Your task to perform on an android device: clear history in the chrome app Image 0: 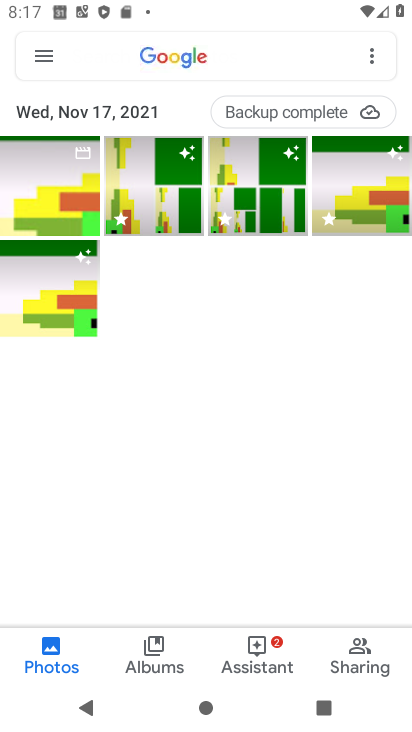
Step 0: press home button
Your task to perform on an android device: clear history in the chrome app Image 1: 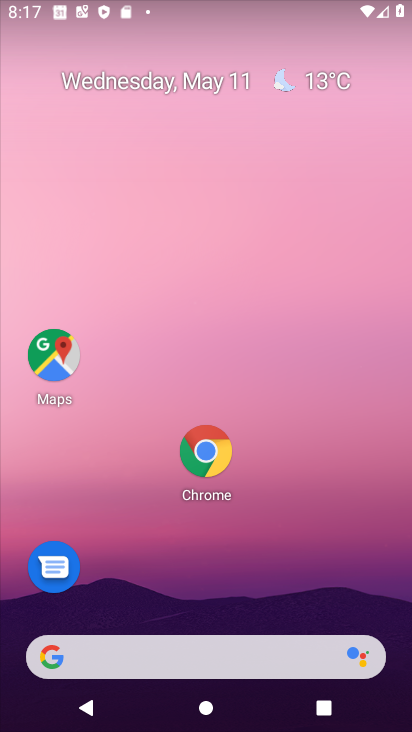
Step 1: click (206, 455)
Your task to perform on an android device: clear history in the chrome app Image 2: 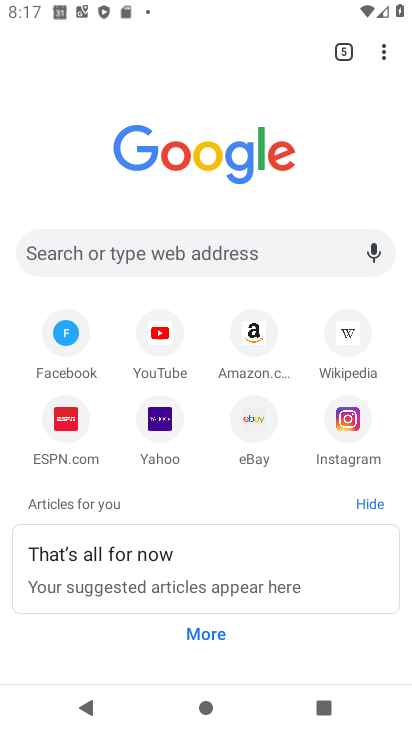
Step 2: drag from (382, 57) to (227, 299)
Your task to perform on an android device: clear history in the chrome app Image 3: 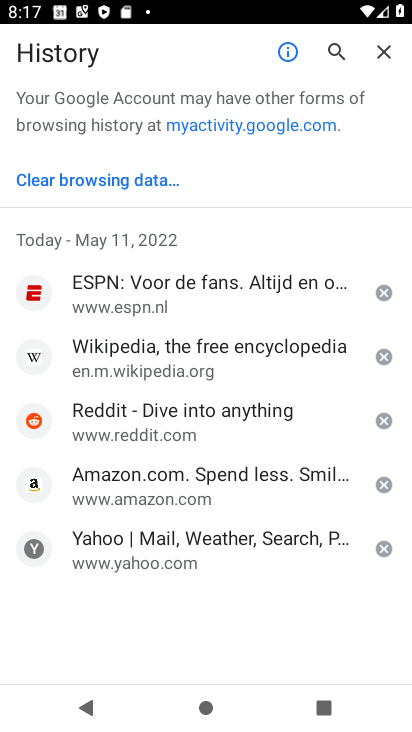
Step 3: click (97, 178)
Your task to perform on an android device: clear history in the chrome app Image 4: 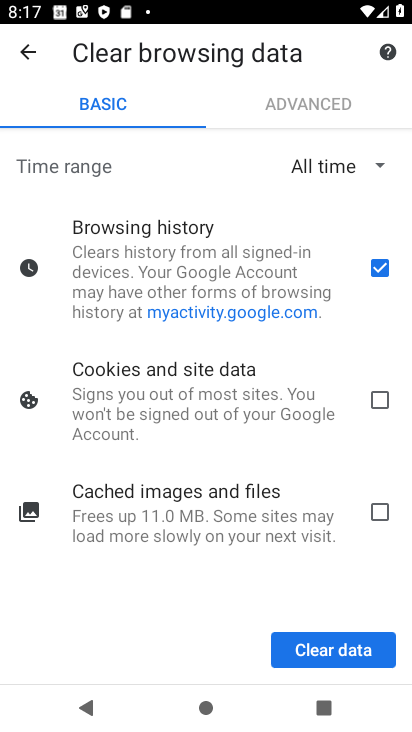
Step 4: click (366, 400)
Your task to perform on an android device: clear history in the chrome app Image 5: 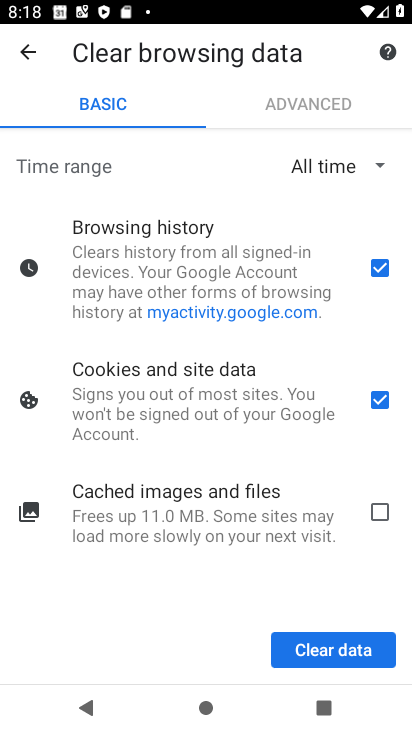
Step 5: click (380, 507)
Your task to perform on an android device: clear history in the chrome app Image 6: 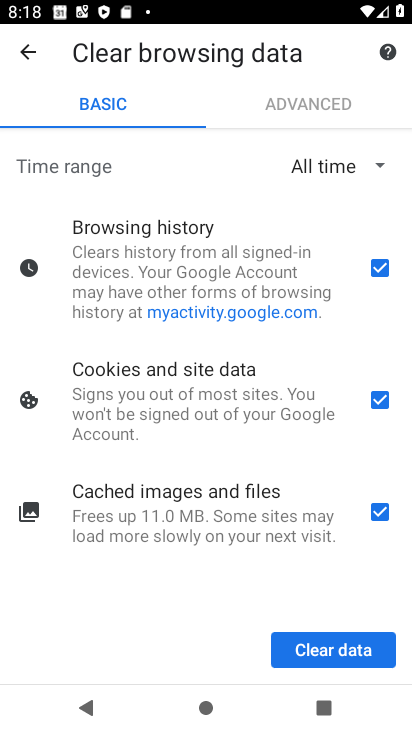
Step 6: click (314, 652)
Your task to perform on an android device: clear history in the chrome app Image 7: 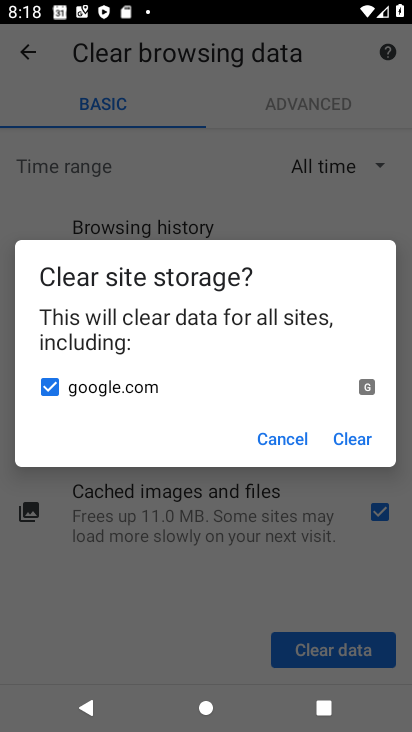
Step 7: click (342, 427)
Your task to perform on an android device: clear history in the chrome app Image 8: 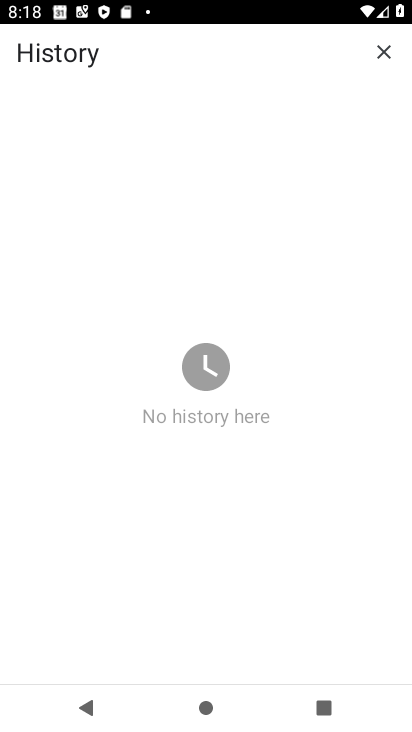
Step 8: task complete